Your task to perform on an android device: allow notifications from all sites in the chrome app Image 0: 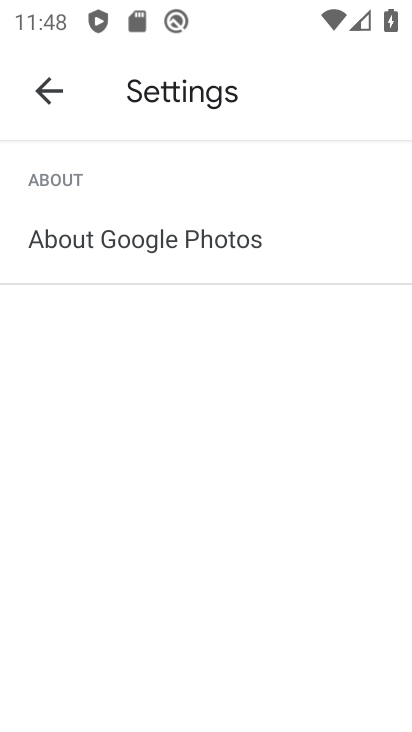
Step 0: press home button
Your task to perform on an android device: allow notifications from all sites in the chrome app Image 1: 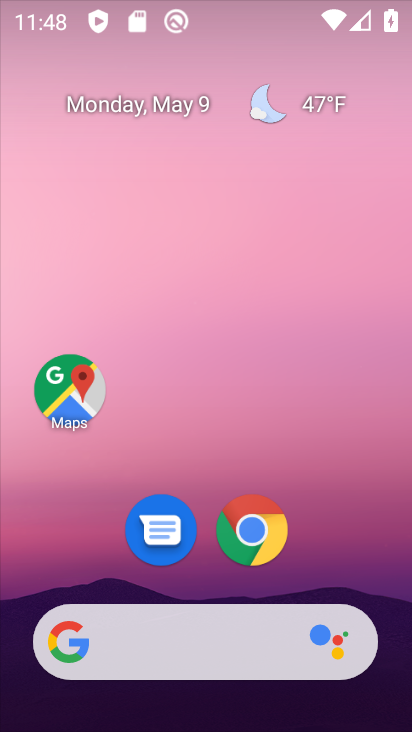
Step 1: drag from (405, 551) to (348, 191)
Your task to perform on an android device: allow notifications from all sites in the chrome app Image 2: 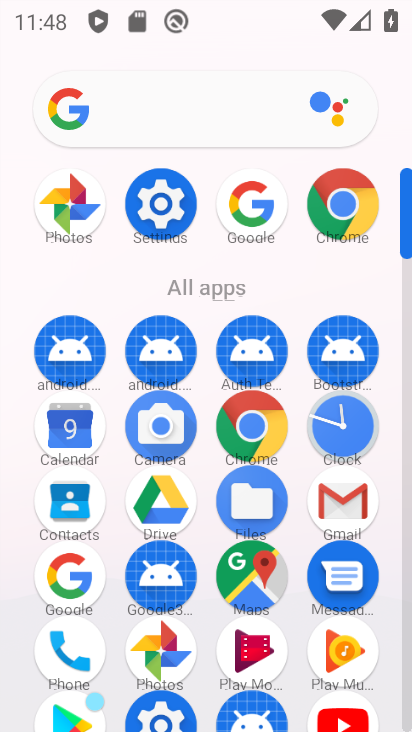
Step 2: click (251, 421)
Your task to perform on an android device: allow notifications from all sites in the chrome app Image 3: 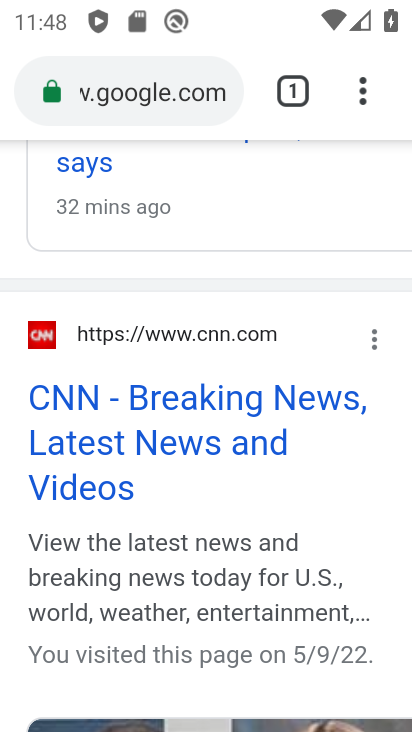
Step 3: drag from (364, 103) to (193, 574)
Your task to perform on an android device: allow notifications from all sites in the chrome app Image 4: 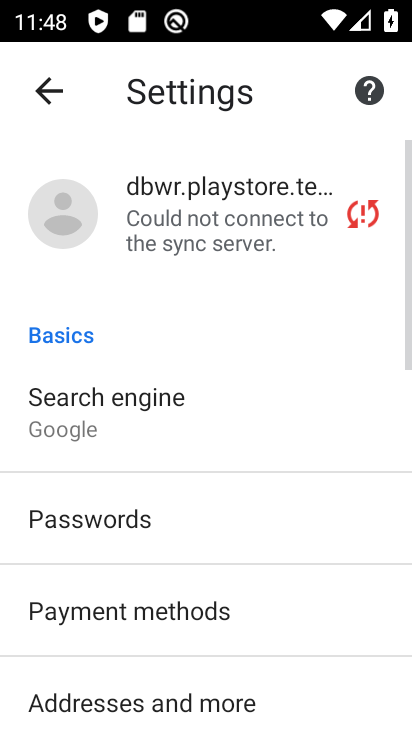
Step 4: drag from (228, 606) to (244, 197)
Your task to perform on an android device: allow notifications from all sites in the chrome app Image 5: 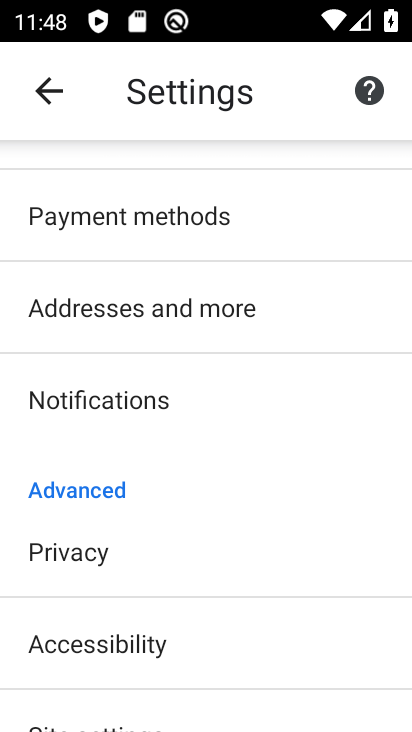
Step 5: drag from (203, 614) to (251, 261)
Your task to perform on an android device: allow notifications from all sites in the chrome app Image 6: 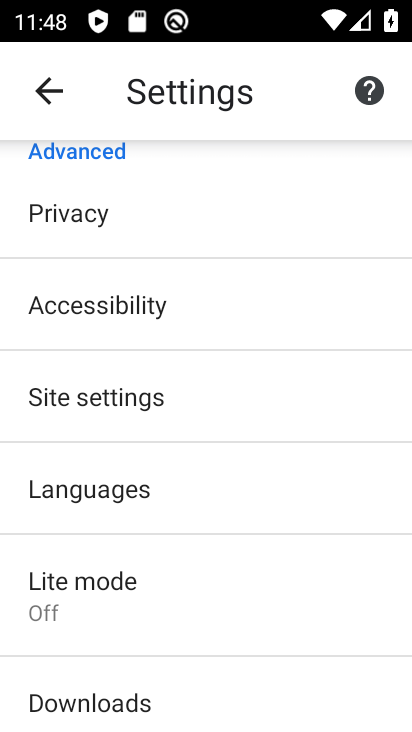
Step 6: click (199, 387)
Your task to perform on an android device: allow notifications from all sites in the chrome app Image 7: 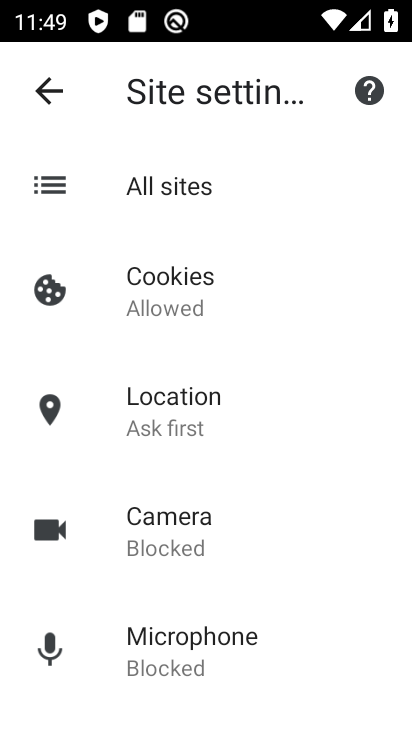
Step 7: click (193, 194)
Your task to perform on an android device: allow notifications from all sites in the chrome app Image 8: 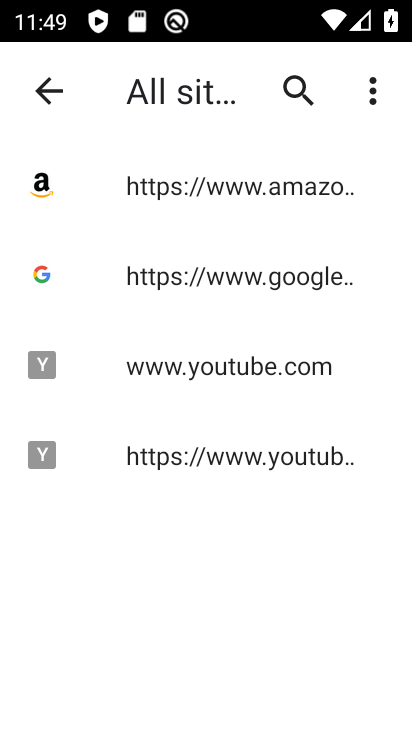
Step 8: click (195, 193)
Your task to perform on an android device: allow notifications from all sites in the chrome app Image 9: 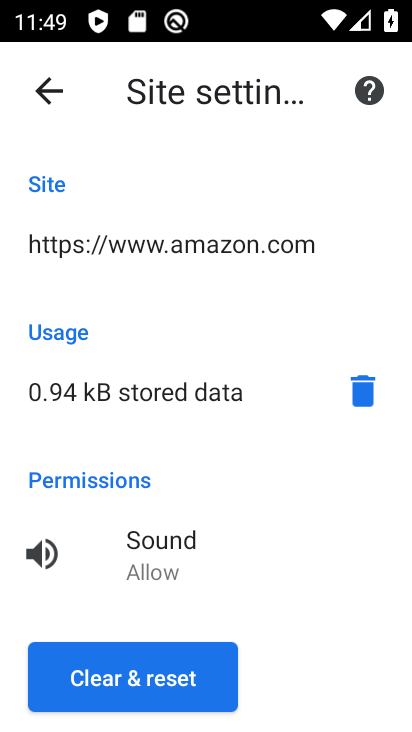
Step 9: task complete